Your task to perform on an android device: open app "Calculator" Image 0: 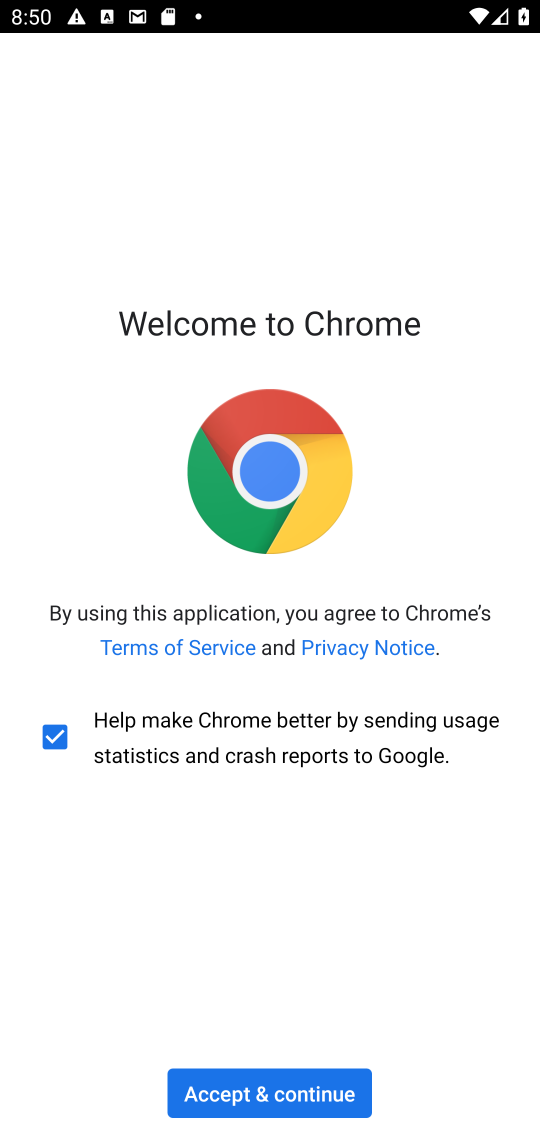
Step 0: press home button
Your task to perform on an android device: open app "Calculator" Image 1: 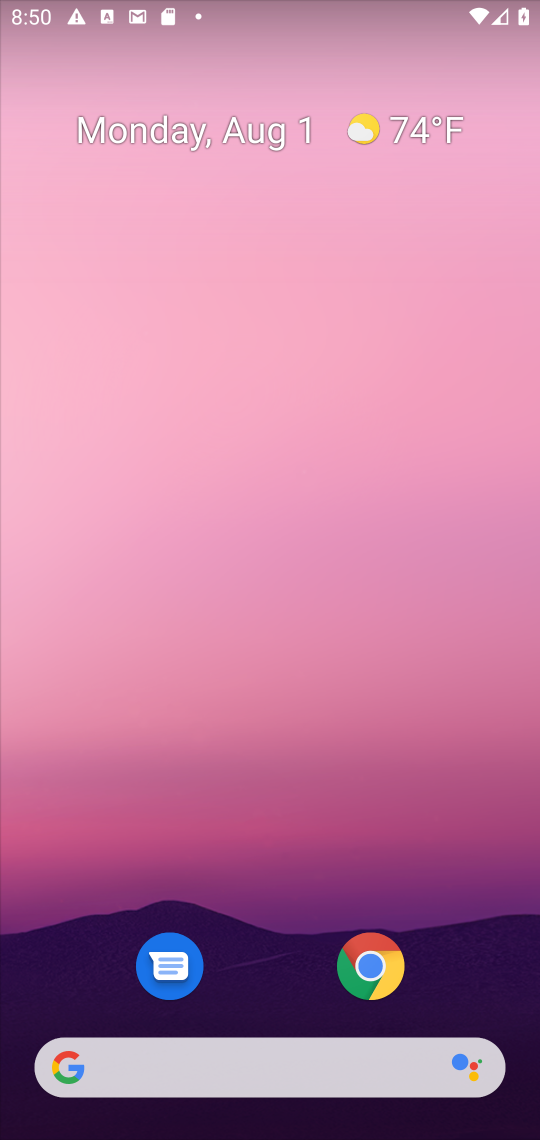
Step 1: drag from (520, 951) to (483, 96)
Your task to perform on an android device: open app "Calculator" Image 2: 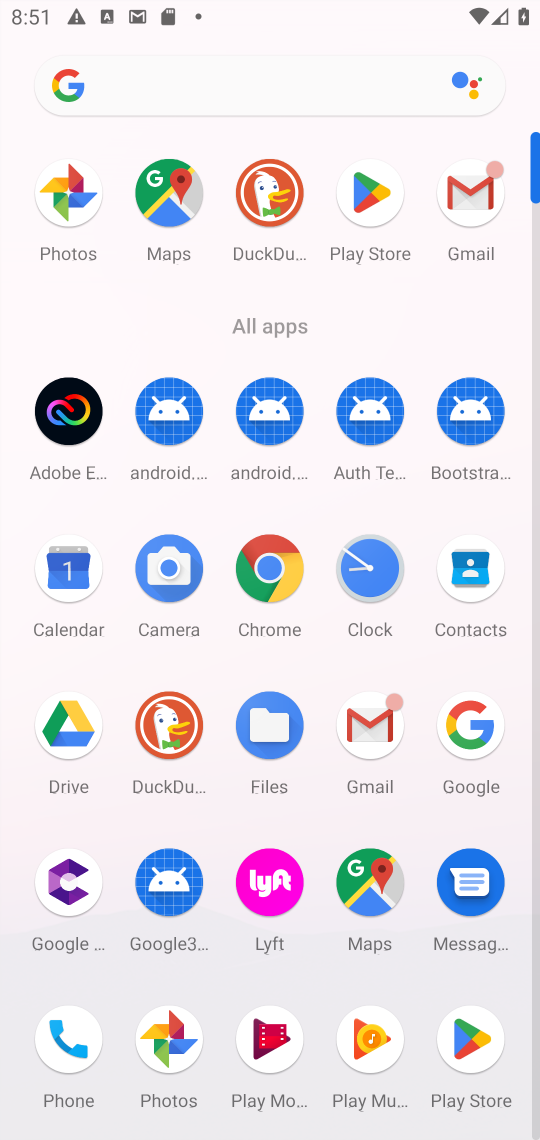
Step 2: click (469, 1031)
Your task to perform on an android device: open app "Calculator" Image 3: 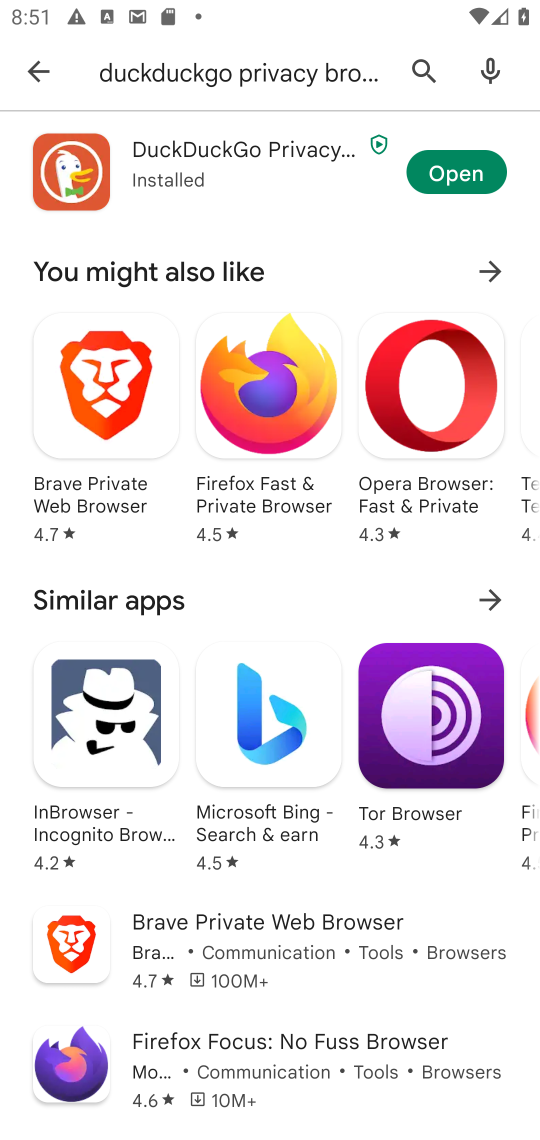
Step 3: click (425, 67)
Your task to perform on an android device: open app "Calculator" Image 4: 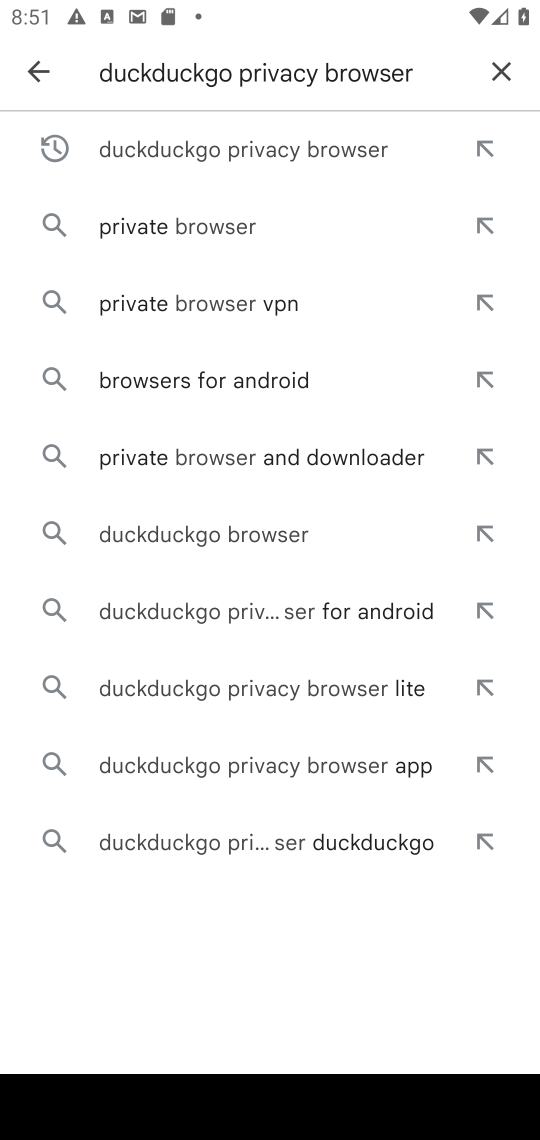
Step 4: click (513, 63)
Your task to perform on an android device: open app "Calculator" Image 5: 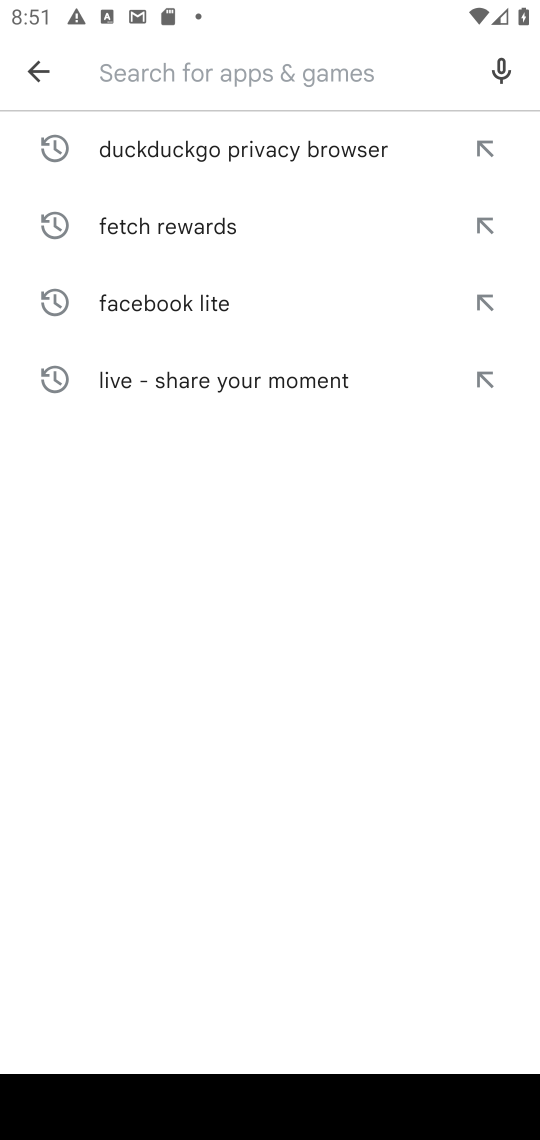
Step 5: type "Calculator"
Your task to perform on an android device: open app "Calculator" Image 6: 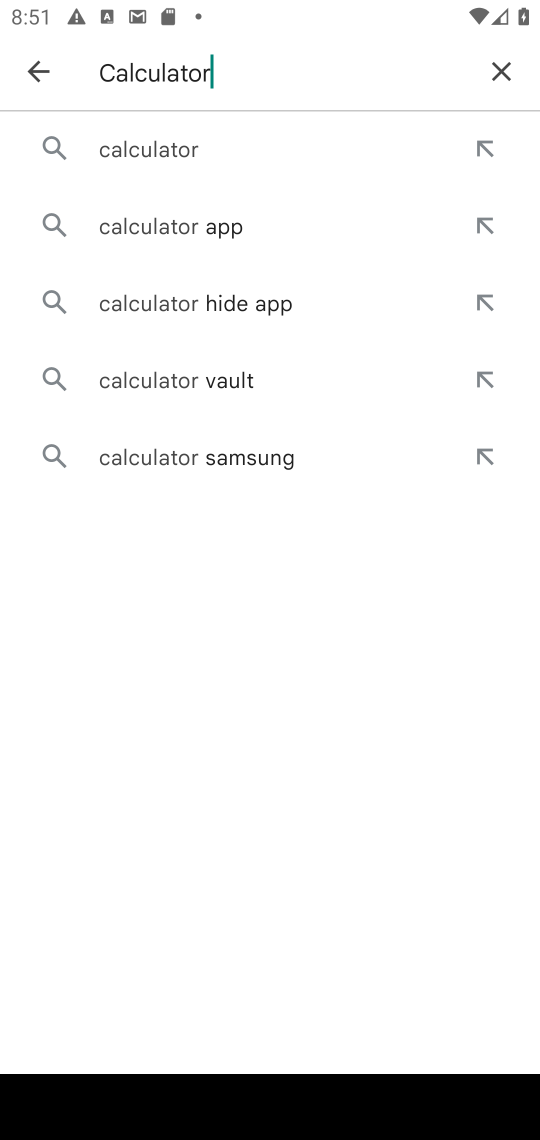
Step 6: click (134, 145)
Your task to perform on an android device: open app "Calculator" Image 7: 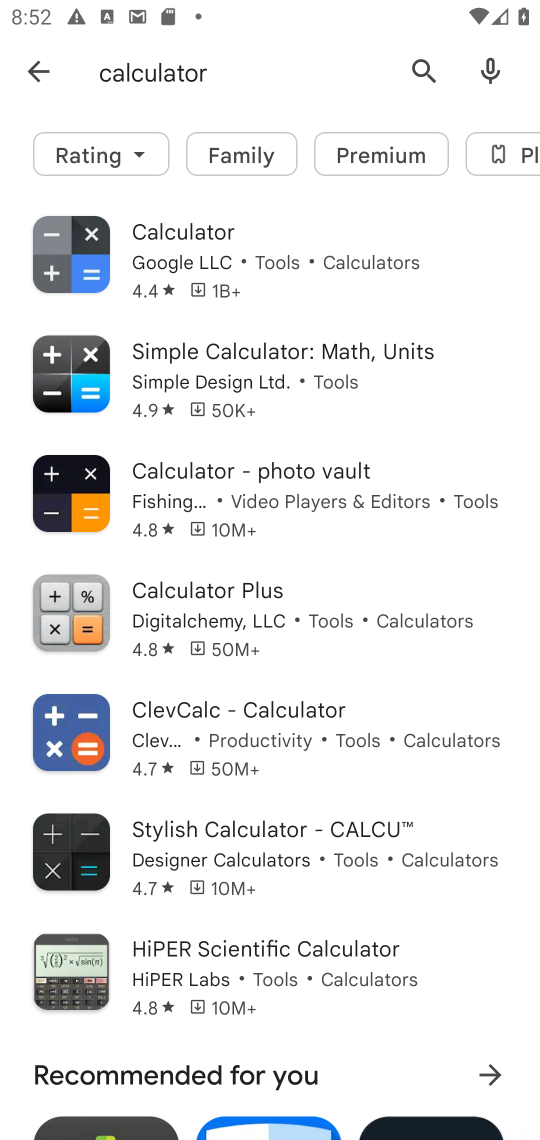
Step 7: click (178, 240)
Your task to perform on an android device: open app "Calculator" Image 8: 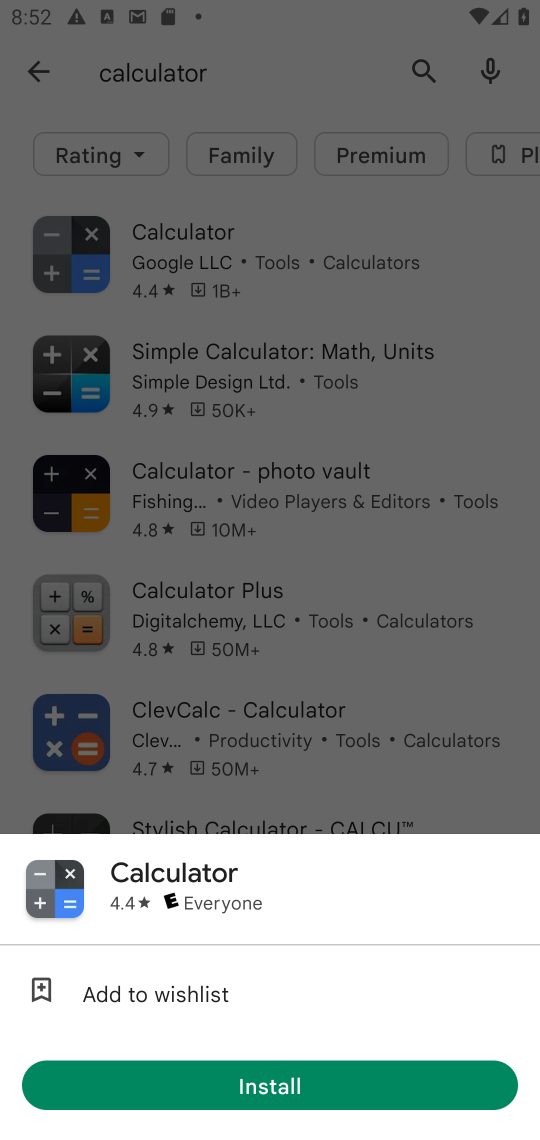
Step 8: task complete